Your task to perform on an android device: Open eBay Image 0: 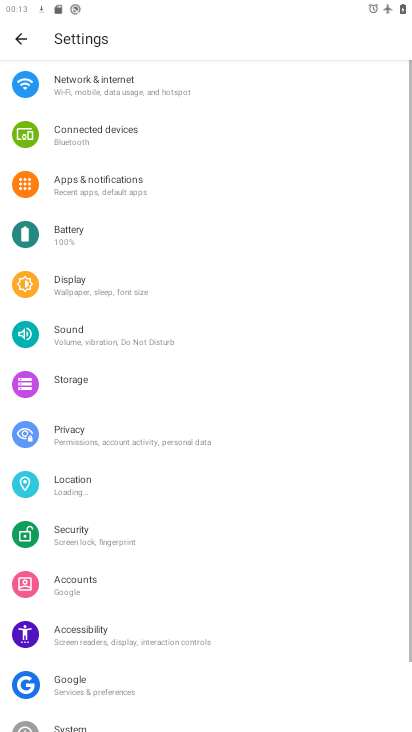
Step 0: drag from (197, 582) to (208, 199)
Your task to perform on an android device: Open eBay Image 1: 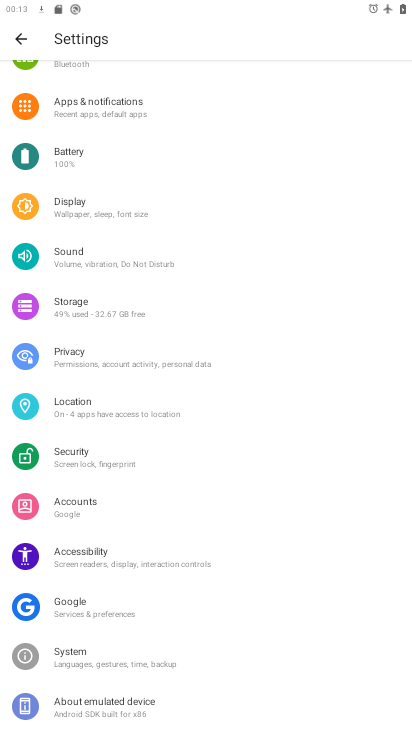
Step 1: press home button
Your task to perform on an android device: Open eBay Image 2: 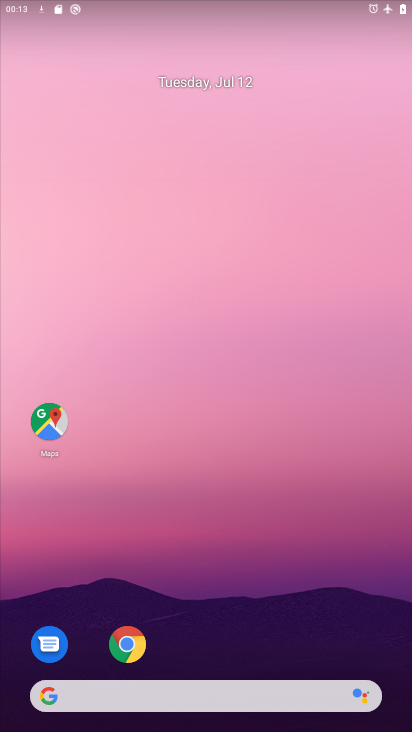
Step 2: drag from (237, 603) to (284, 99)
Your task to perform on an android device: Open eBay Image 3: 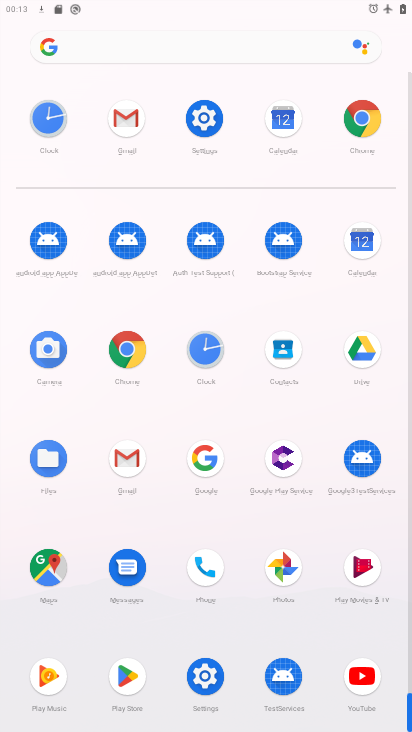
Step 3: click (366, 130)
Your task to perform on an android device: Open eBay Image 4: 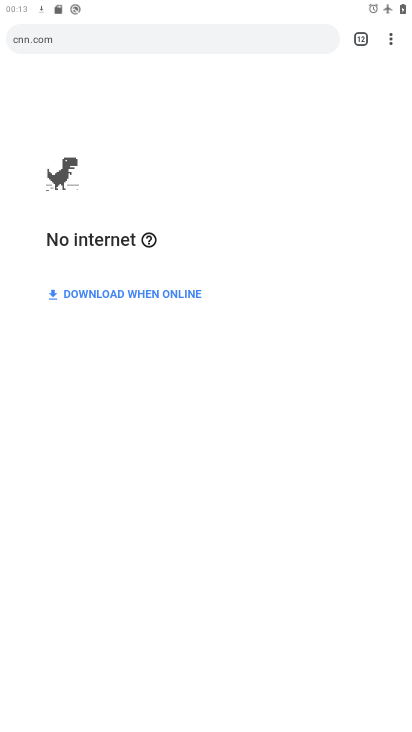
Step 4: click (385, 36)
Your task to perform on an android device: Open eBay Image 5: 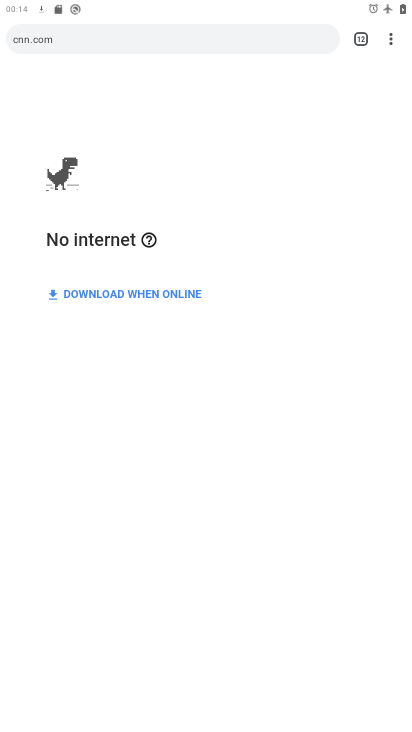
Step 5: click (390, 31)
Your task to perform on an android device: Open eBay Image 6: 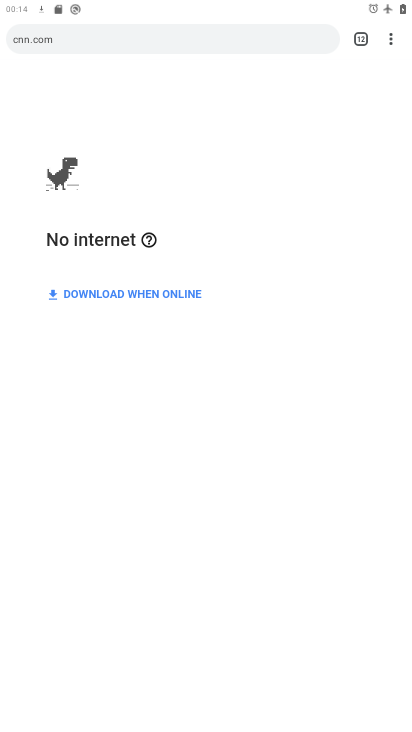
Step 6: click (395, 29)
Your task to perform on an android device: Open eBay Image 7: 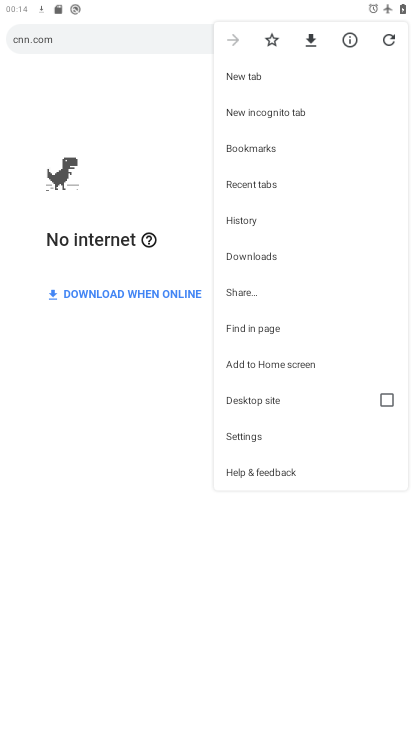
Step 7: click (288, 83)
Your task to perform on an android device: Open eBay Image 8: 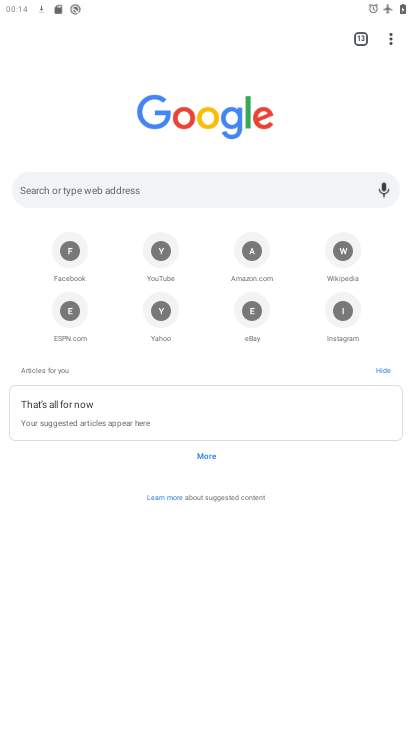
Step 8: click (247, 294)
Your task to perform on an android device: Open eBay Image 9: 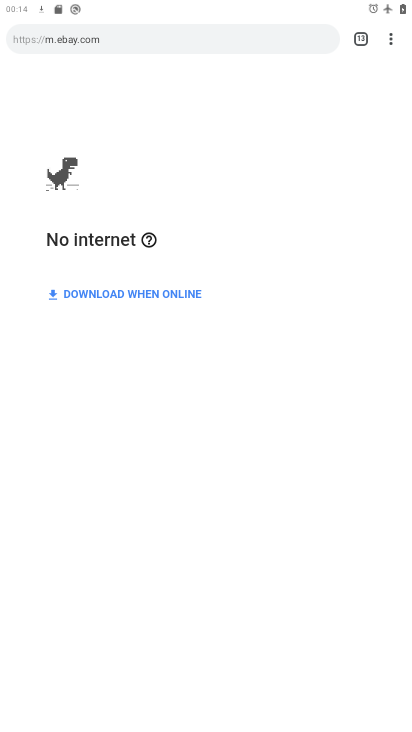
Step 9: task complete